Your task to perform on an android device: Go to accessibility settings Image 0: 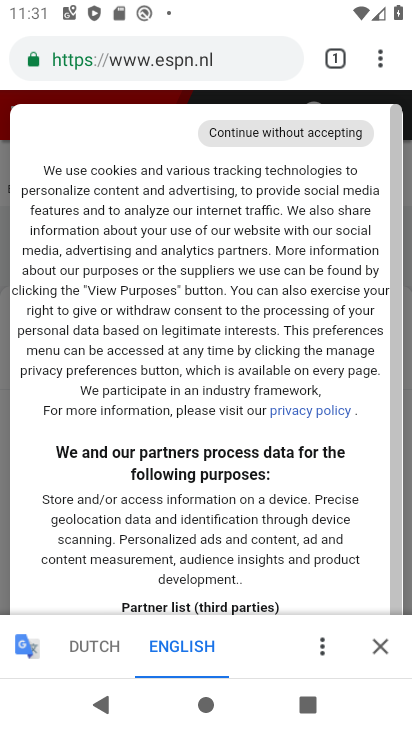
Step 0: press home button
Your task to perform on an android device: Go to accessibility settings Image 1: 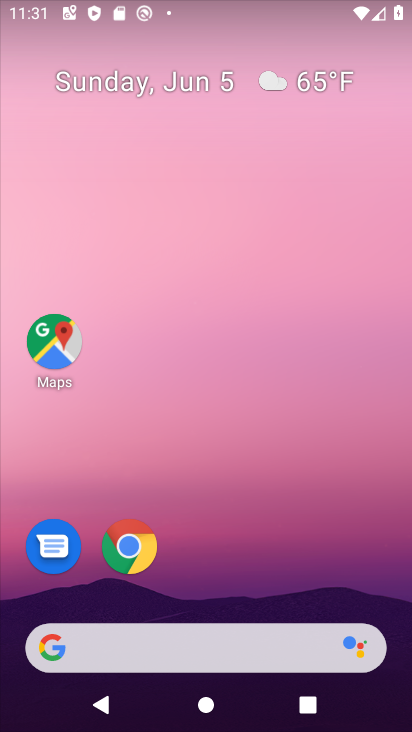
Step 1: drag from (182, 635) to (153, 268)
Your task to perform on an android device: Go to accessibility settings Image 2: 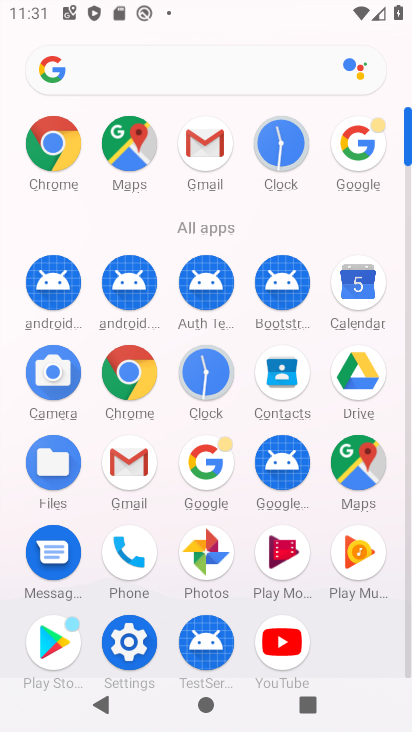
Step 2: click (118, 642)
Your task to perform on an android device: Go to accessibility settings Image 3: 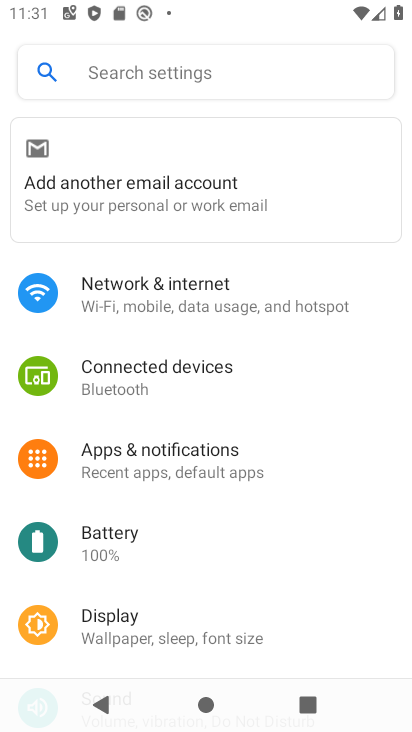
Step 3: drag from (119, 649) to (159, 158)
Your task to perform on an android device: Go to accessibility settings Image 4: 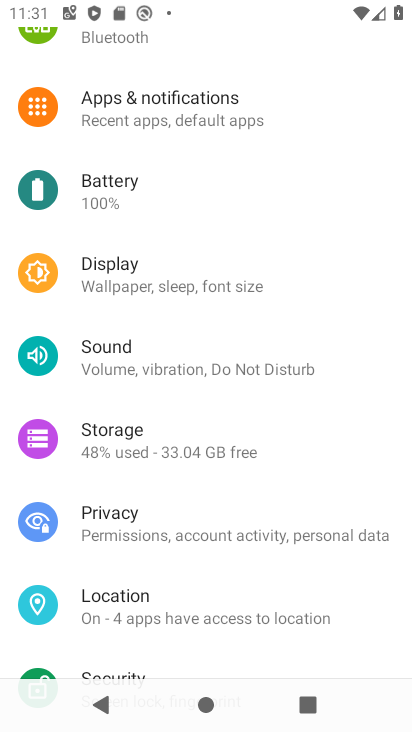
Step 4: drag from (140, 630) to (137, 271)
Your task to perform on an android device: Go to accessibility settings Image 5: 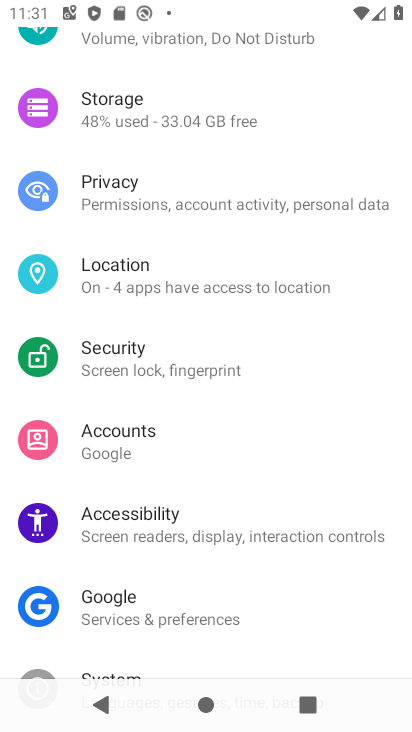
Step 5: click (118, 505)
Your task to perform on an android device: Go to accessibility settings Image 6: 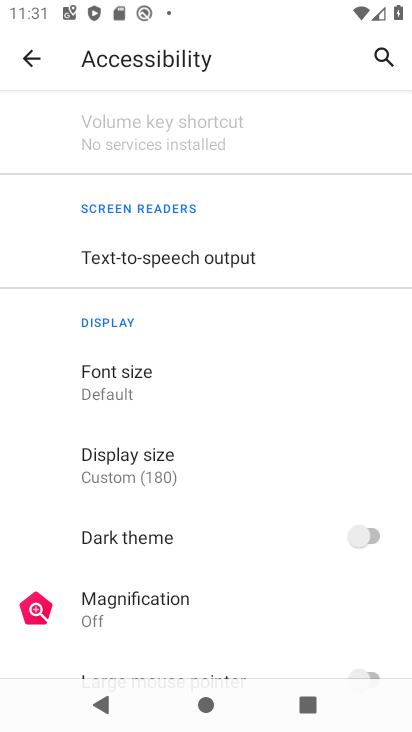
Step 6: task complete